Your task to perform on an android device: toggle data saver in the chrome app Image 0: 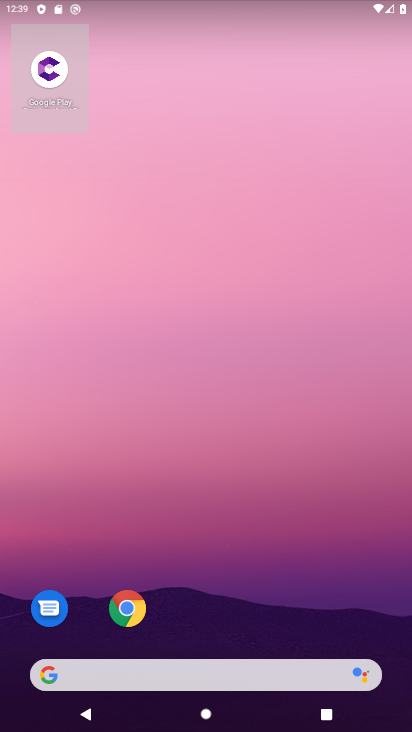
Step 0: click (296, 70)
Your task to perform on an android device: toggle data saver in the chrome app Image 1: 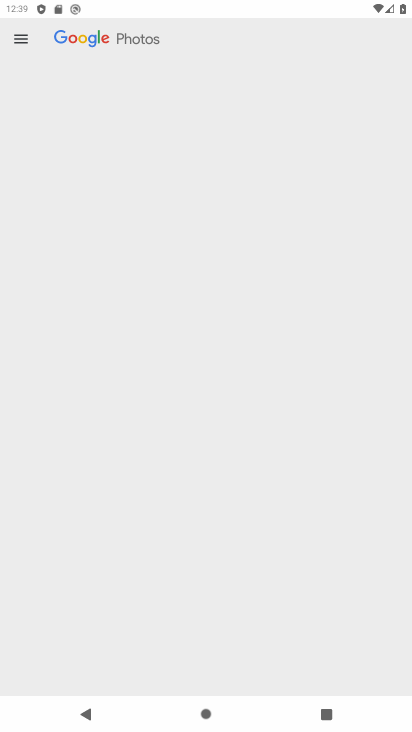
Step 1: press home button
Your task to perform on an android device: toggle data saver in the chrome app Image 2: 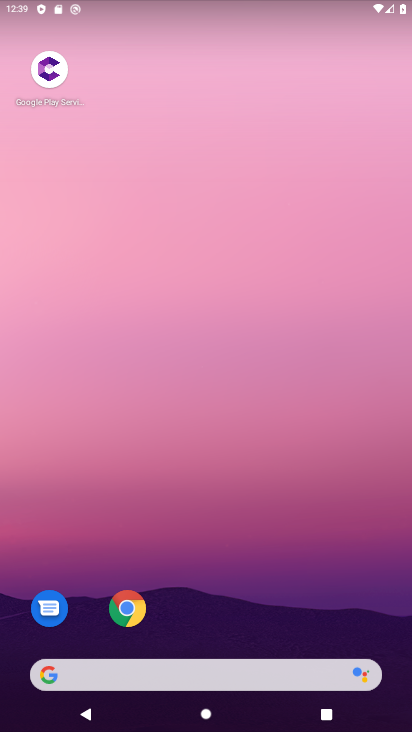
Step 2: drag from (258, 580) to (240, 172)
Your task to perform on an android device: toggle data saver in the chrome app Image 3: 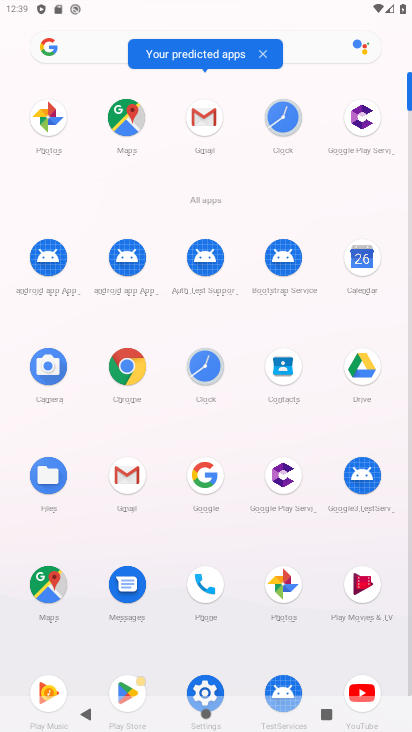
Step 3: click (122, 373)
Your task to perform on an android device: toggle data saver in the chrome app Image 4: 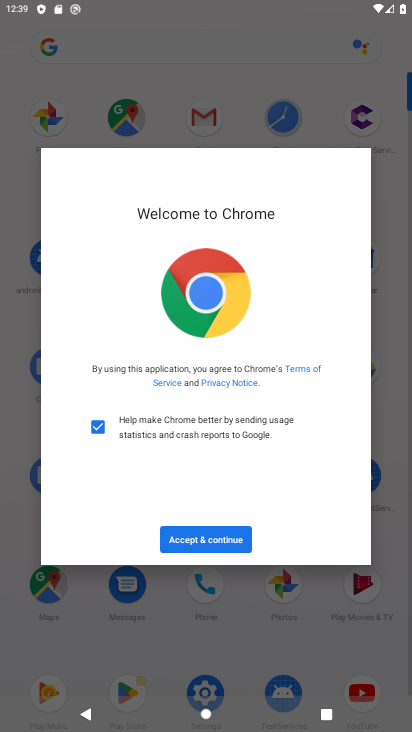
Step 4: click (218, 536)
Your task to perform on an android device: toggle data saver in the chrome app Image 5: 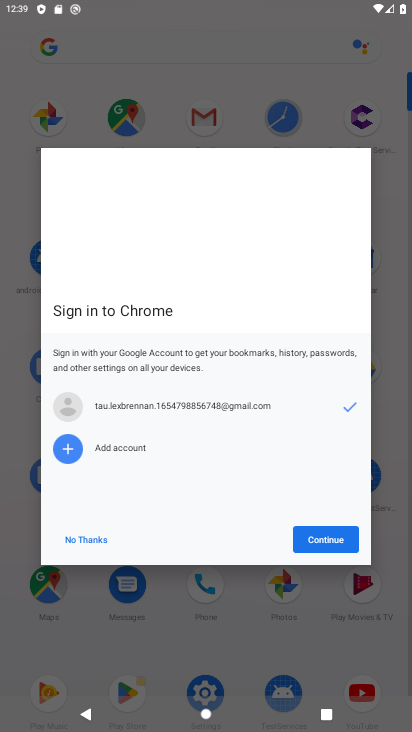
Step 5: click (330, 553)
Your task to perform on an android device: toggle data saver in the chrome app Image 6: 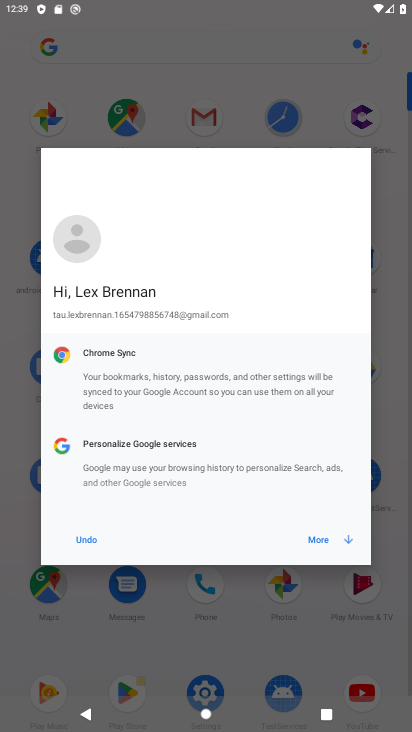
Step 6: click (325, 539)
Your task to perform on an android device: toggle data saver in the chrome app Image 7: 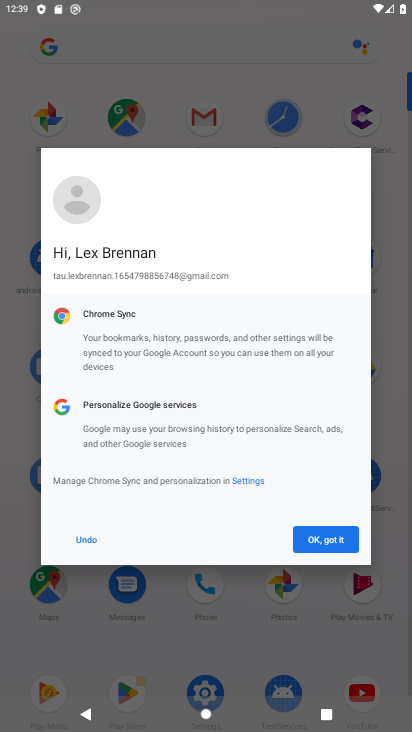
Step 7: click (335, 541)
Your task to perform on an android device: toggle data saver in the chrome app Image 8: 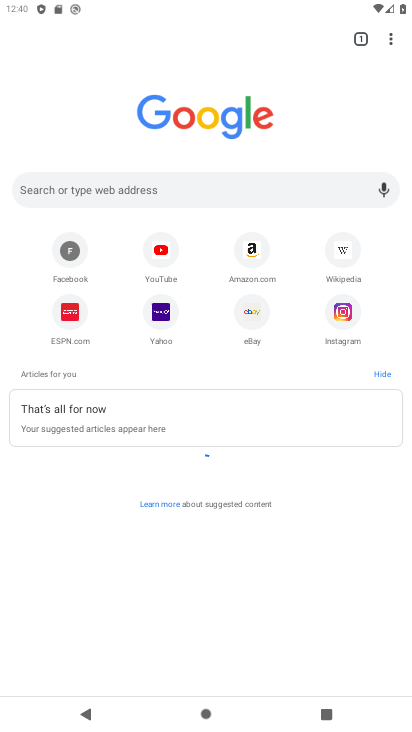
Step 8: task complete